Your task to perform on an android device: see creations saved in the google photos Image 0: 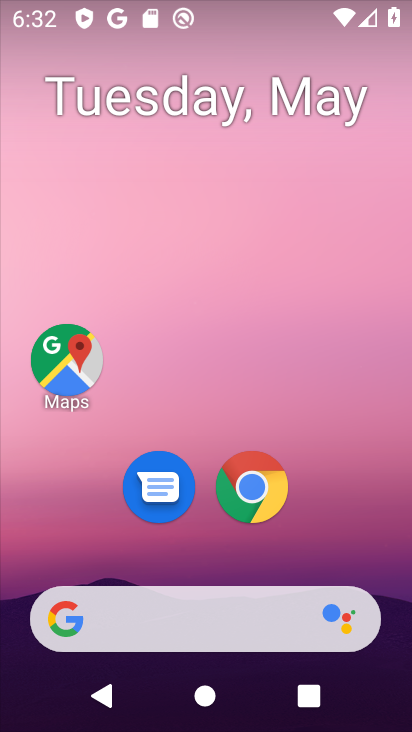
Step 0: drag from (359, 515) to (196, 97)
Your task to perform on an android device: see creations saved in the google photos Image 1: 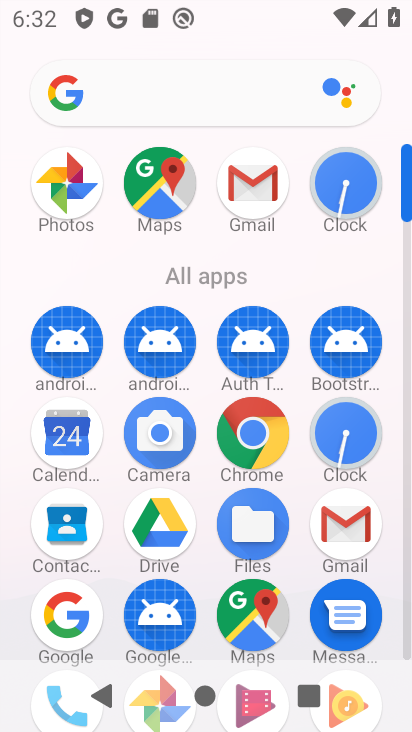
Step 1: click (75, 177)
Your task to perform on an android device: see creations saved in the google photos Image 2: 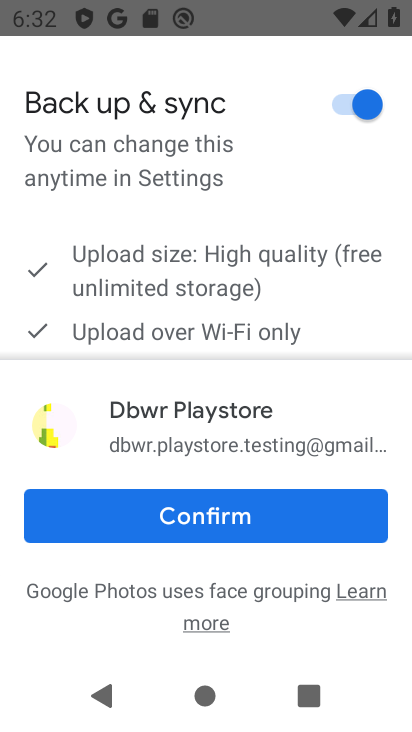
Step 2: click (208, 511)
Your task to perform on an android device: see creations saved in the google photos Image 3: 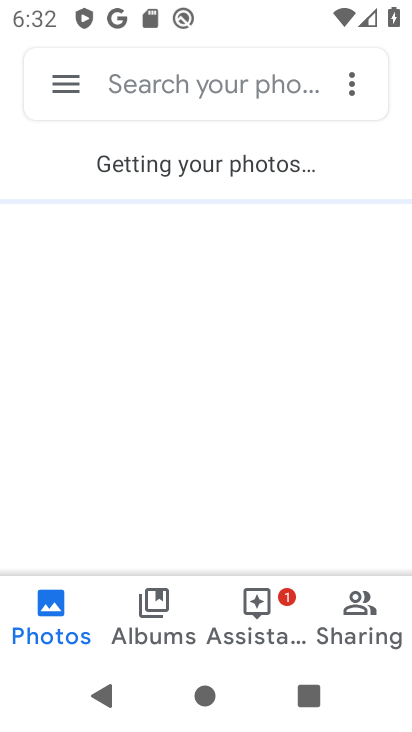
Step 3: click (141, 85)
Your task to perform on an android device: see creations saved in the google photos Image 4: 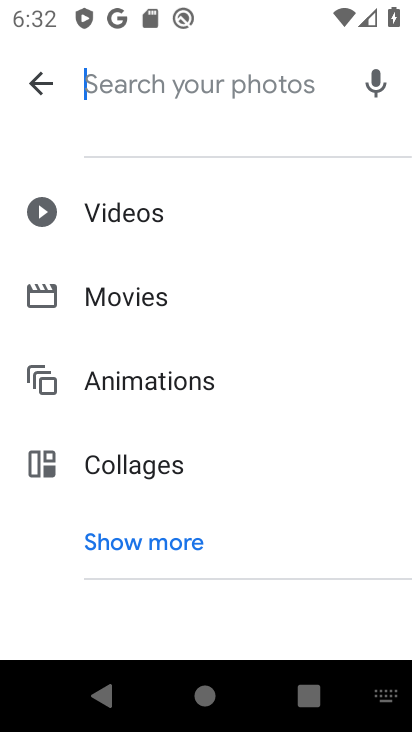
Step 4: click (144, 538)
Your task to perform on an android device: see creations saved in the google photos Image 5: 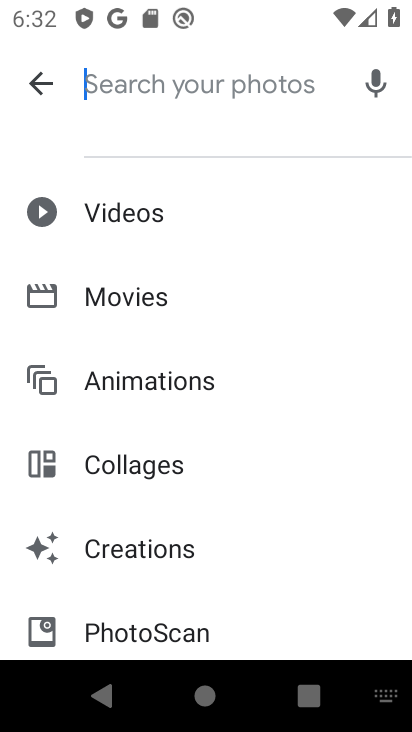
Step 5: click (144, 549)
Your task to perform on an android device: see creations saved in the google photos Image 6: 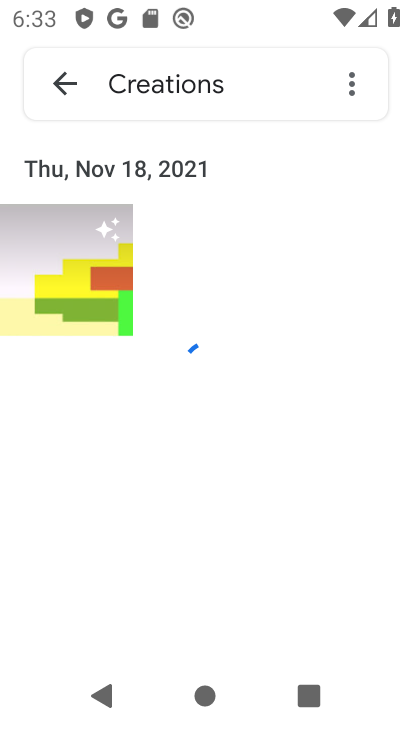
Step 6: task complete